Your task to perform on an android device: toggle improve location accuracy Image 0: 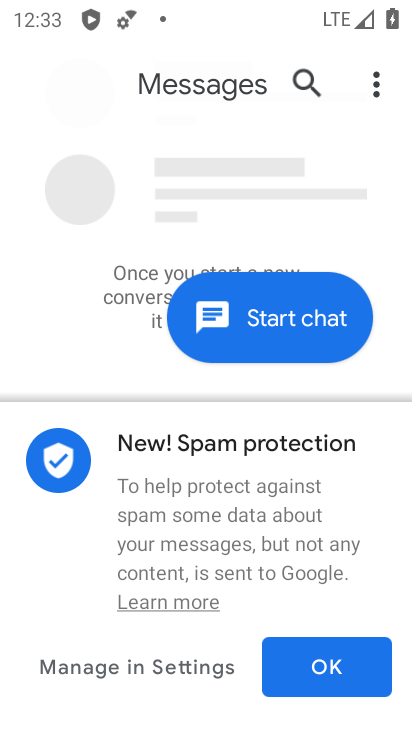
Step 0: press home button
Your task to perform on an android device: toggle improve location accuracy Image 1: 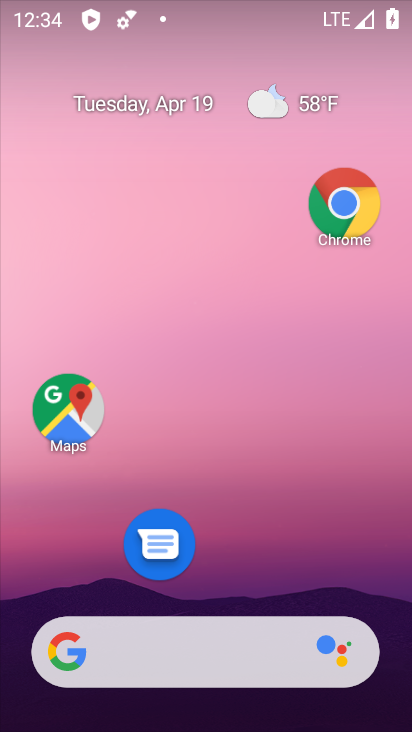
Step 1: drag from (249, 522) to (216, 68)
Your task to perform on an android device: toggle improve location accuracy Image 2: 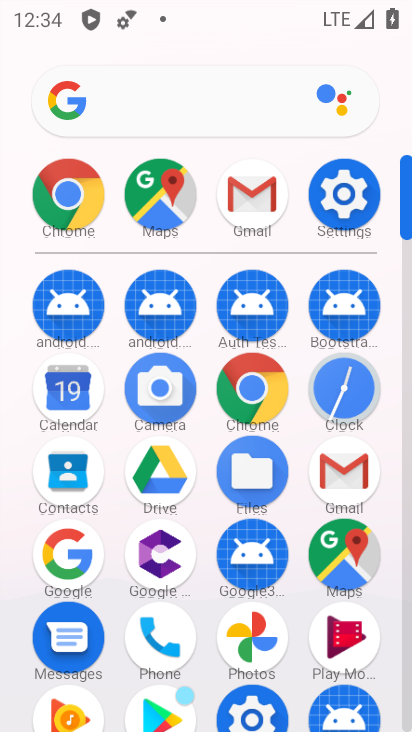
Step 2: click (354, 177)
Your task to perform on an android device: toggle improve location accuracy Image 3: 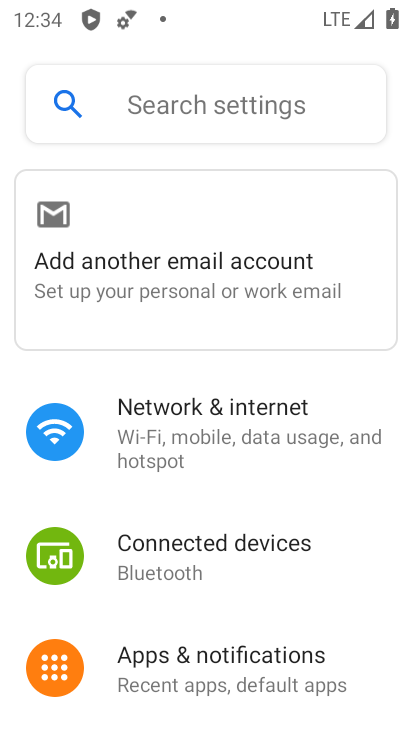
Step 3: drag from (250, 623) to (228, 267)
Your task to perform on an android device: toggle improve location accuracy Image 4: 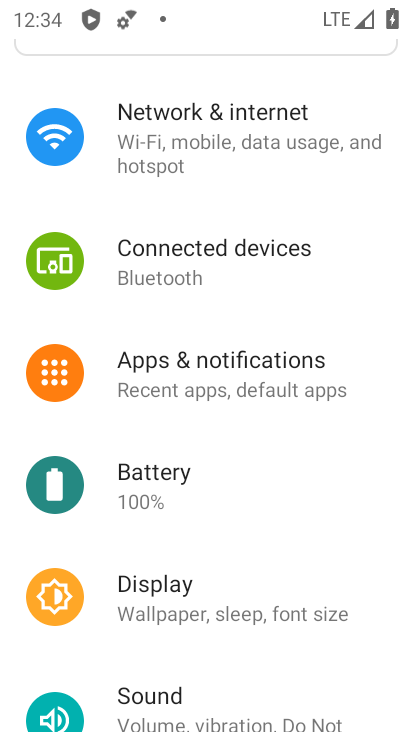
Step 4: drag from (241, 559) to (281, 268)
Your task to perform on an android device: toggle improve location accuracy Image 5: 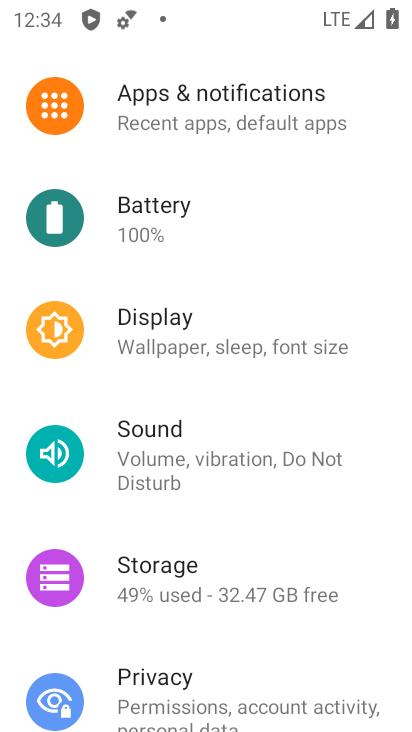
Step 5: drag from (318, 645) to (333, 238)
Your task to perform on an android device: toggle improve location accuracy Image 6: 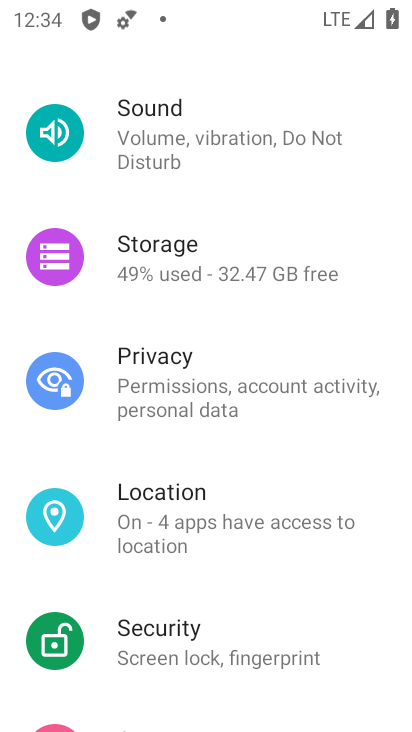
Step 6: click (237, 522)
Your task to perform on an android device: toggle improve location accuracy Image 7: 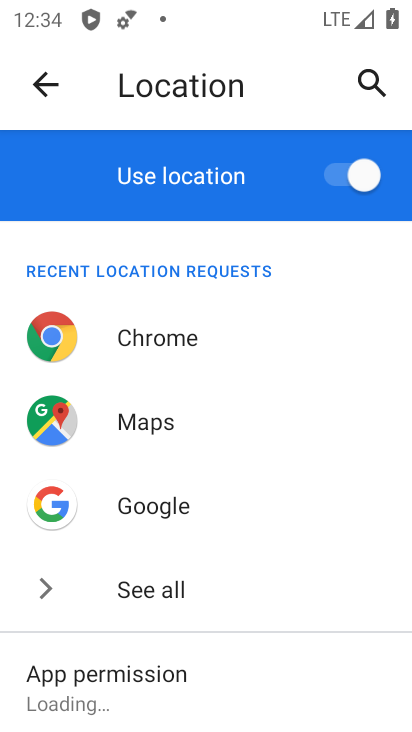
Step 7: drag from (289, 563) to (315, 240)
Your task to perform on an android device: toggle improve location accuracy Image 8: 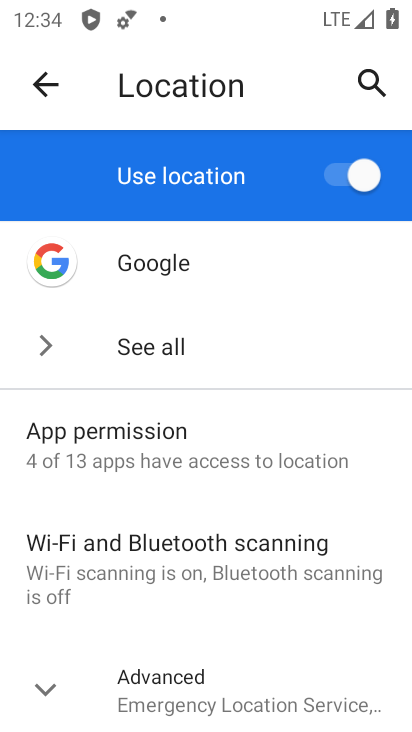
Step 8: drag from (272, 648) to (298, 329)
Your task to perform on an android device: toggle improve location accuracy Image 9: 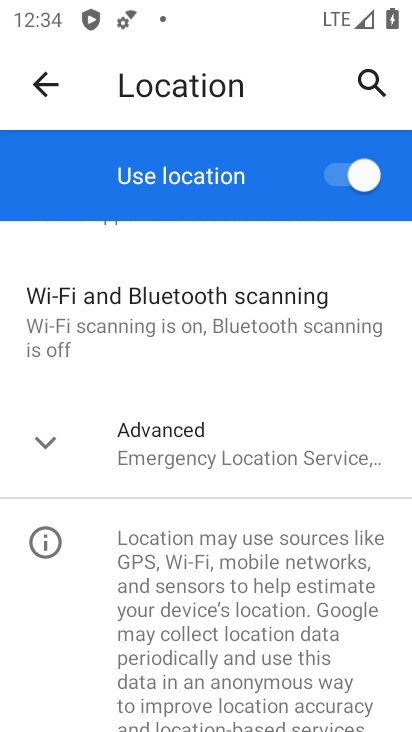
Step 9: click (273, 447)
Your task to perform on an android device: toggle improve location accuracy Image 10: 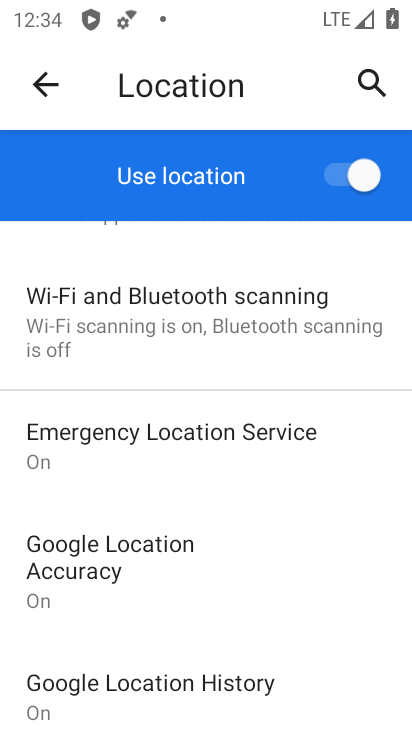
Step 10: click (97, 570)
Your task to perform on an android device: toggle improve location accuracy Image 11: 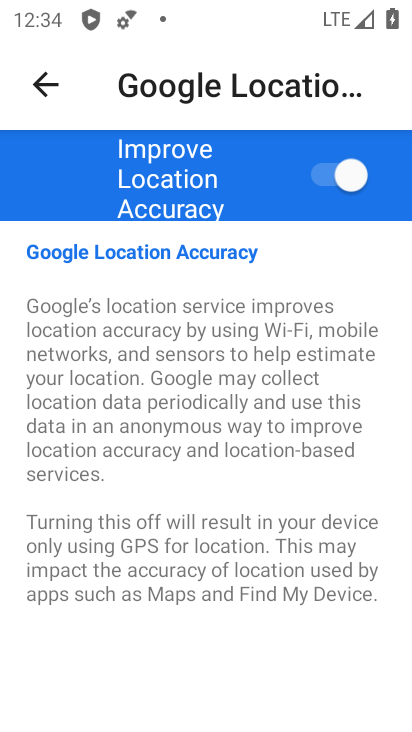
Step 11: click (326, 176)
Your task to perform on an android device: toggle improve location accuracy Image 12: 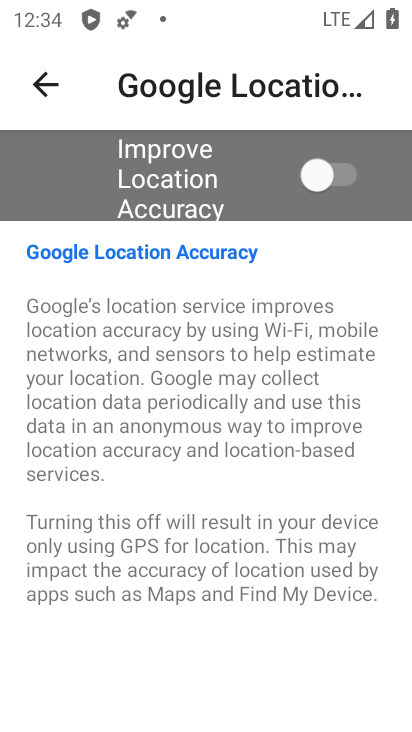
Step 12: task complete